Your task to perform on an android device: Is it going to rain today? Image 0: 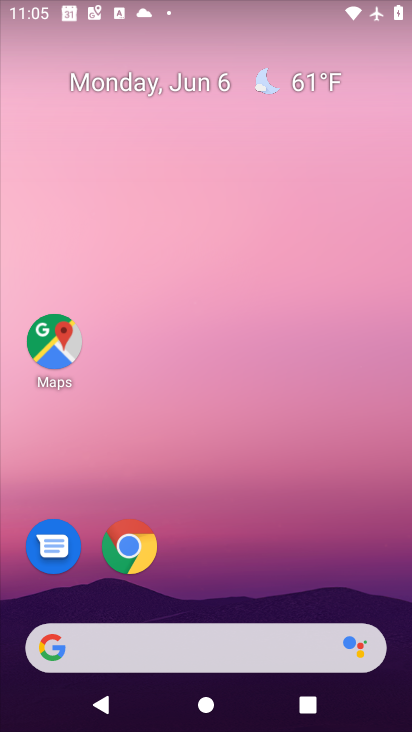
Step 0: click (287, 81)
Your task to perform on an android device: Is it going to rain today? Image 1: 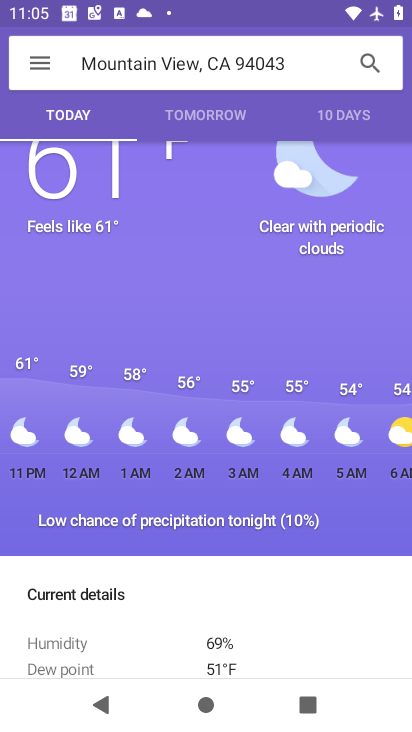
Step 1: task complete